Your task to perform on an android device: Open the web browser Image 0: 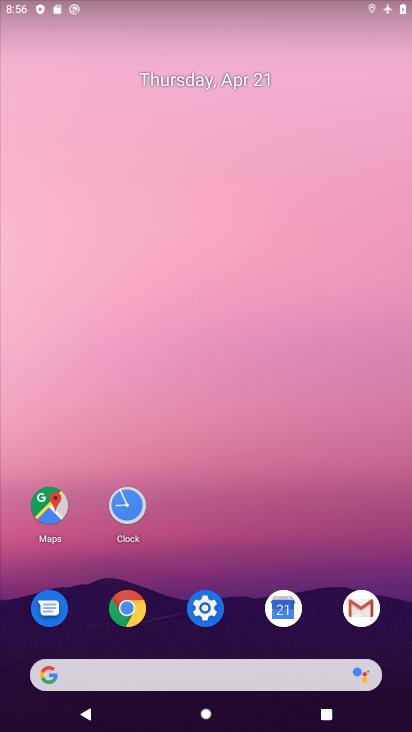
Step 0: click (122, 607)
Your task to perform on an android device: Open the web browser Image 1: 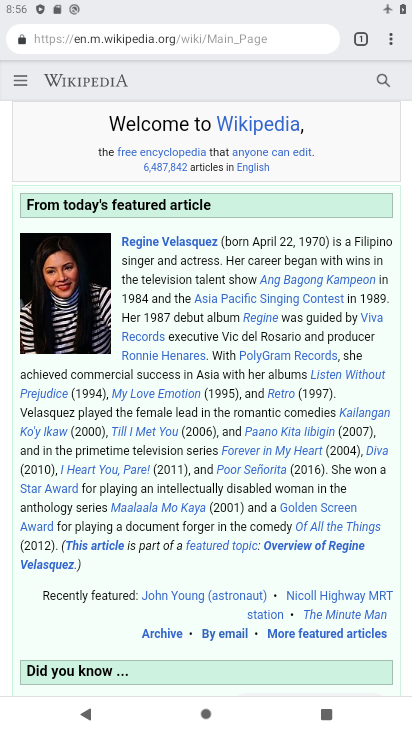
Step 1: click (392, 35)
Your task to perform on an android device: Open the web browser Image 2: 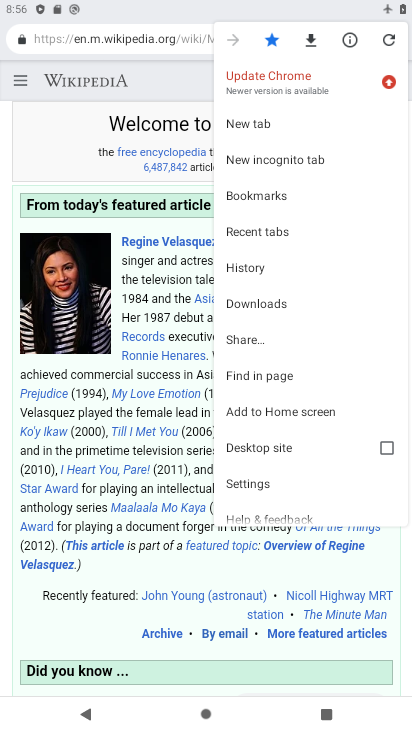
Step 2: click (244, 121)
Your task to perform on an android device: Open the web browser Image 3: 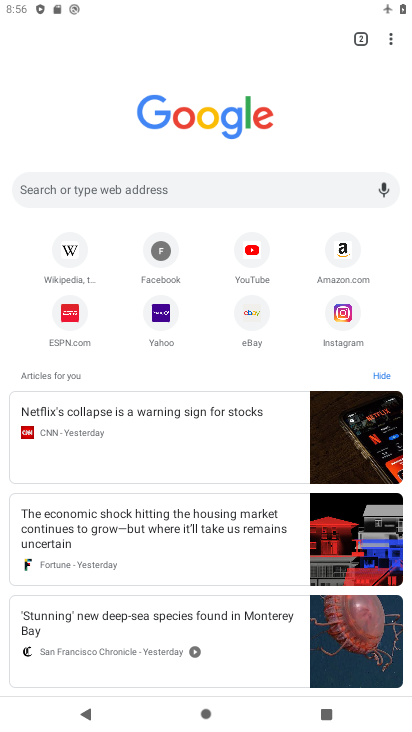
Step 3: task complete